Your task to perform on an android device: choose inbox layout in the gmail app Image 0: 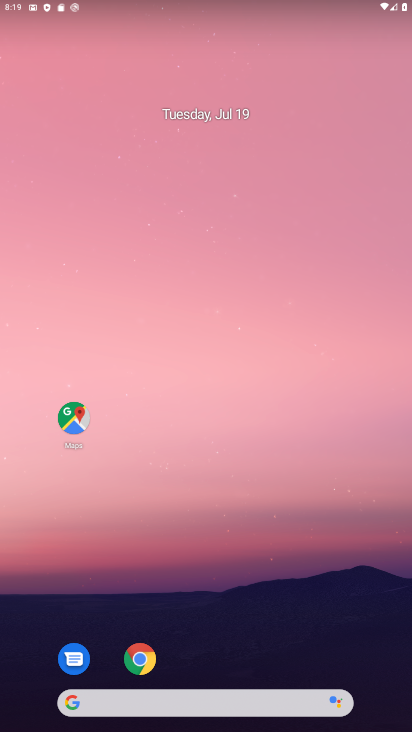
Step 0: drag from (239, 291) to (237, 35)
Your task to perform on an android device: choose inbox layout in the gmail app Image 1: 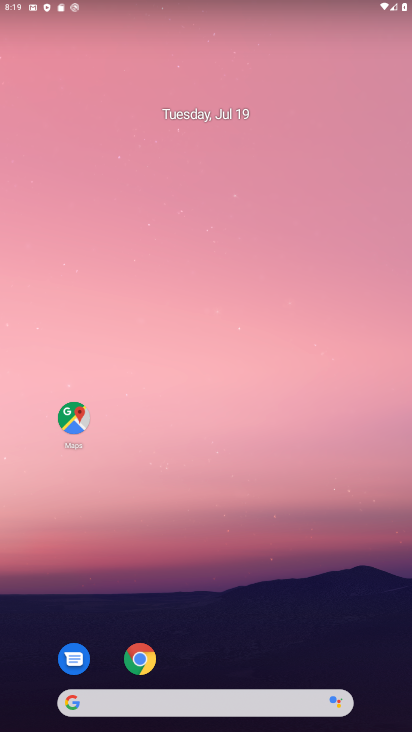
Step 1: drag from (222, 644) to (188, 144)
Your task to perform on an android device: choose inbox layout in the gmail app Image 2: 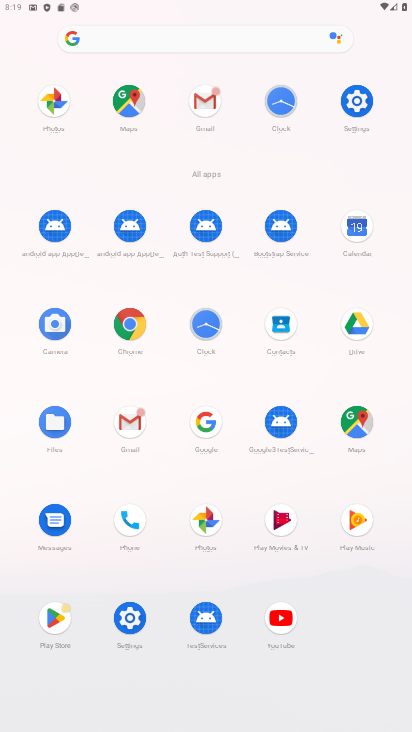
Step 2: click (133, 416)
Your task to perform on an android device: choose inbox layout in the gmail app Image 3: 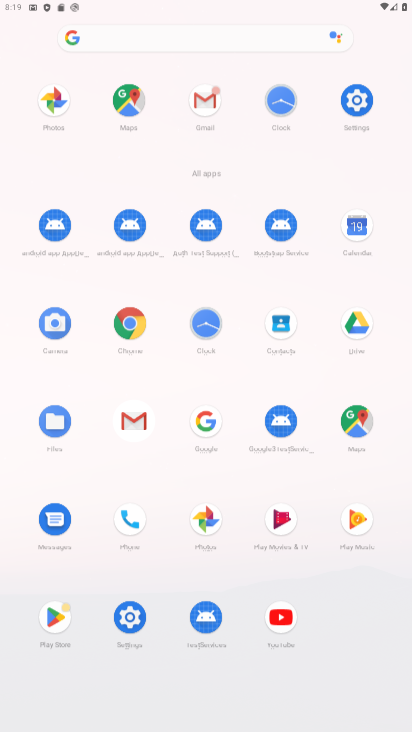
Step 3: click (133, 423)
Your task to perform on an android device: choose inbox layout in the gmail app Image 4: 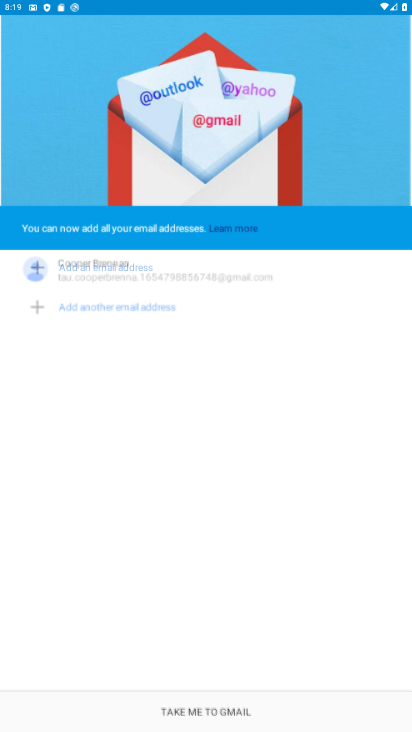
Step 4: click (133, 422)
Your task to perform on an android device: choose inbox layout in the gmail app Image 5: 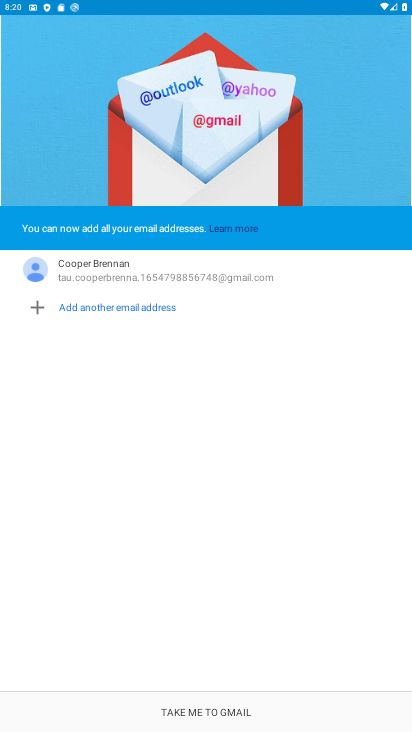
Step 5: press back button
Your task to perform on an android device: choose inbox layout in the gmail app Image 6: 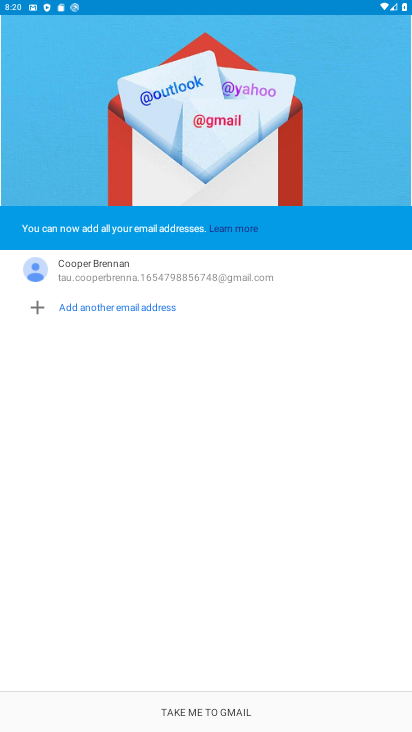
Step 6: press back button
Your task to perform on an android device: choose inbox layout in the gmail app Image 7: 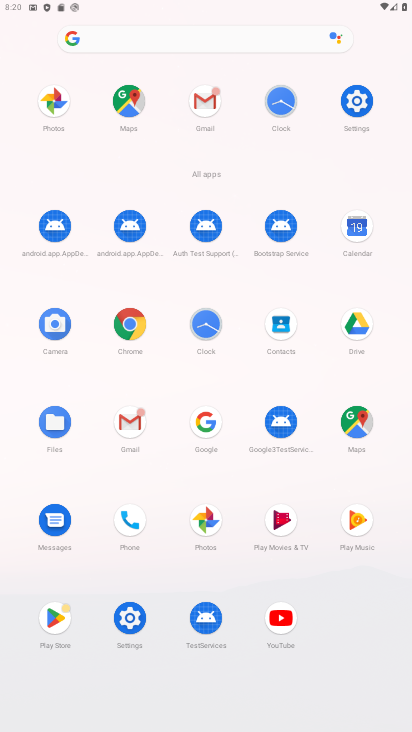
Step 7: click (201, 713)
Your task to perform on an android device: choose inbox layout in the gmail app Image 8: 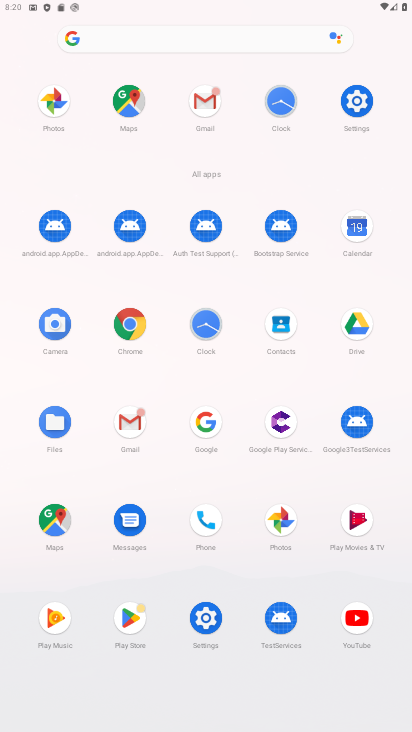
Step 8: click (128, 418)
Your task to perform on an android device: choose inbox layout in the gmail app Image 9: 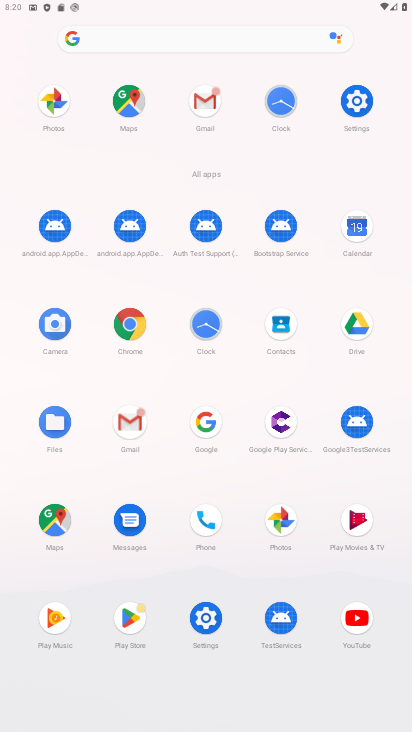
Step 9: click (129, 418)
Your task to perform on an android device: choose inbox layout in the gmail app Image 10: 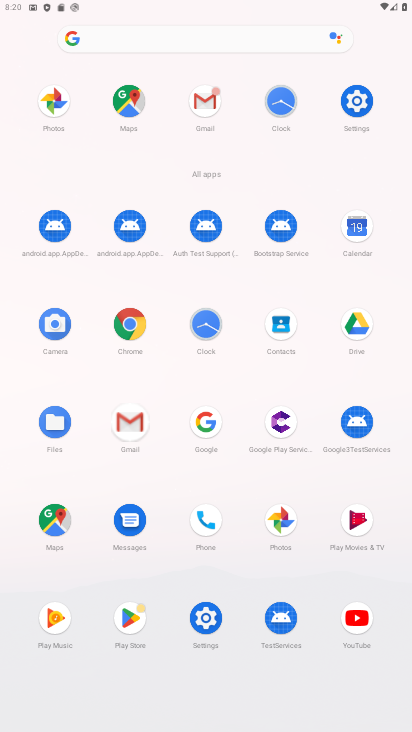
Step 10: click (130, 418)
Your task to perform on an android device: choose inbox layout in the gmail app Image 11: 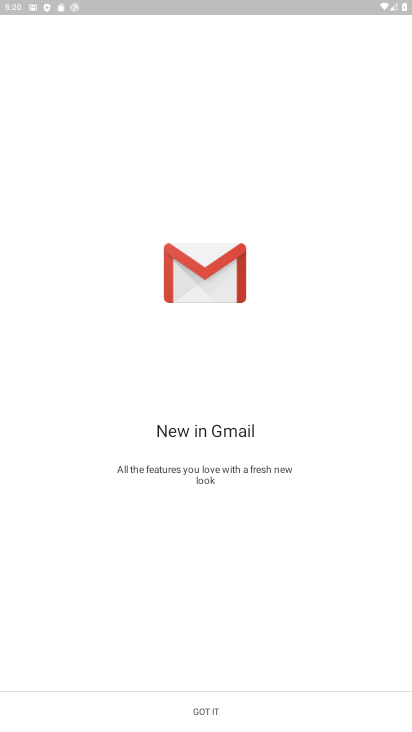
Step 11: click (238, 722)
Your task to perform on an android device: choose inbox layout in the gmail app Image 12: 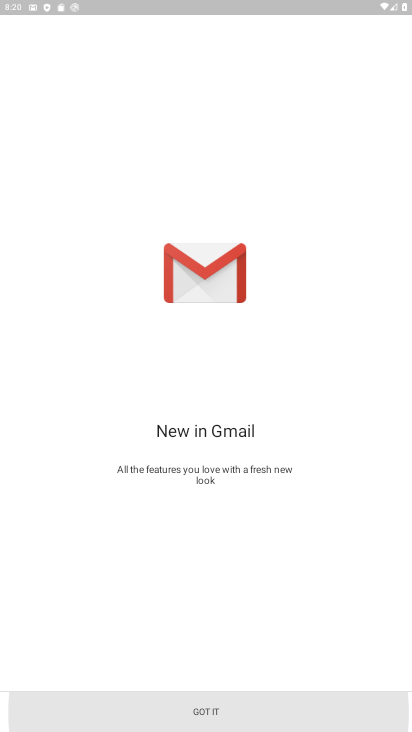
Step 12: click (237, 722)
Your task to perform on an android device: choose inbox layout in the gmail app Image 13: 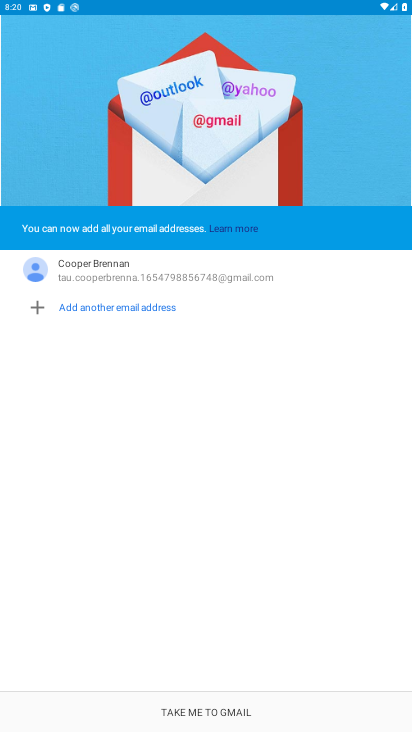
Step 13: press back button
Your task to perform on an android device: choose inbox layout in the gmail app Image 14: 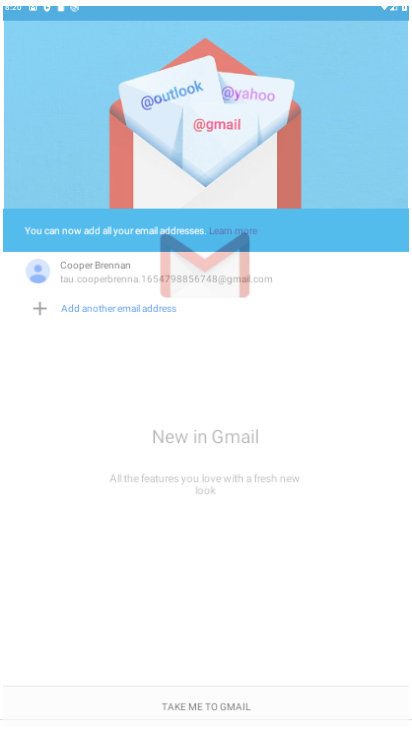
Step 14: press back button
Your task to perform on an android device: choose inbox layout in the gmail app Image 15: 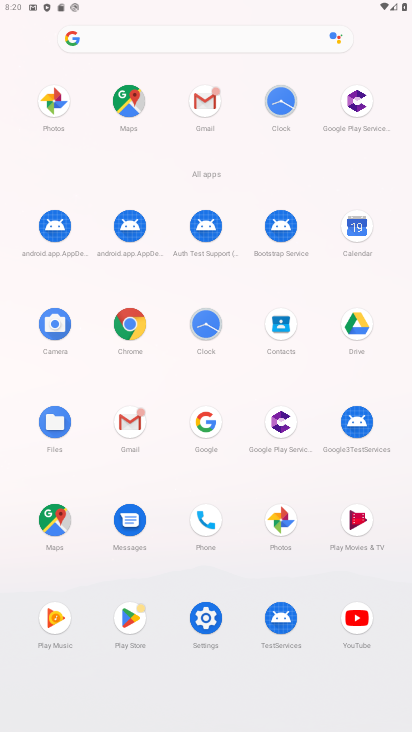
Step 15: click (124, 422)
Your task to perform on an android device: choose inbox layout in the gmail app Image 16: 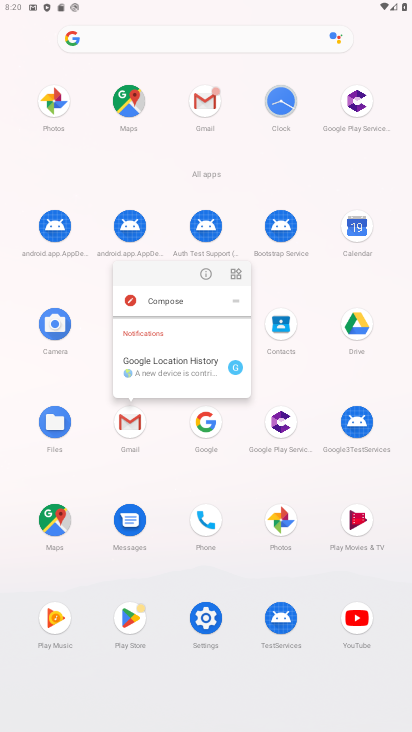
Step 16: click (124, 421)
Your task to perform on an android device: choose inbox layout in the gmail app Image 17: 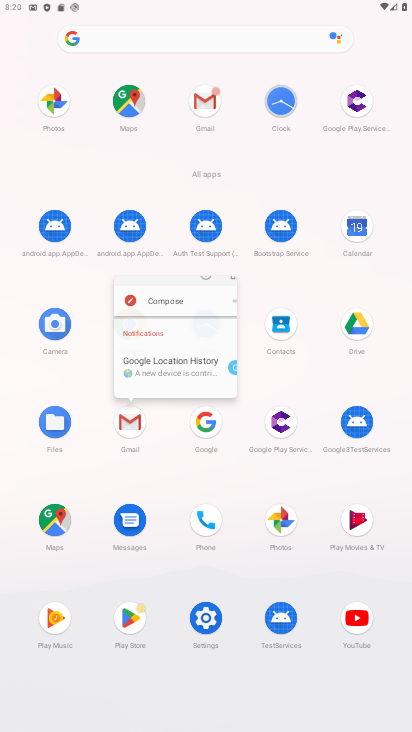
Step 17: click (124, 421)
Your task to perform on an android device: choose inbox layout in the gmail app Image 18: 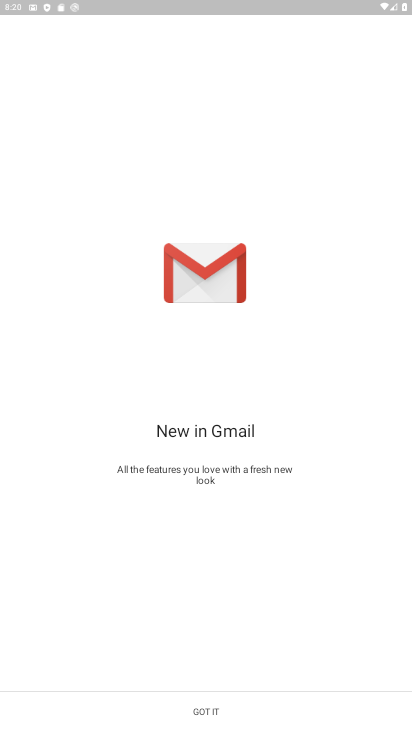
Step 18: click (211, 703)
Your task to perform on an android device: choose inbox layout in the gmail app Image 19: 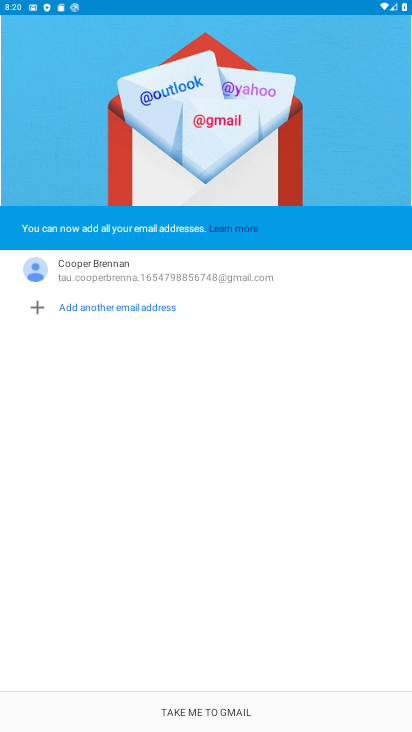
Step 19: click (214, 717)
Your task to perform on an android device: choose inbox layout in the gmail app Image 20: 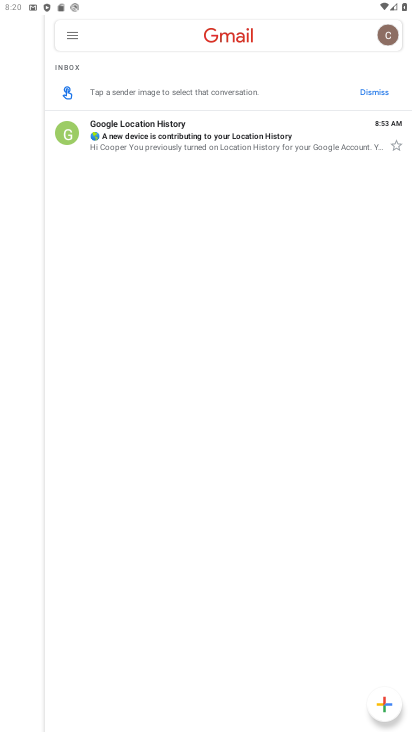
Step 20: click (72, 38)
Your task to perform on an android device: choose inbox layout in the gmail app Image 21: 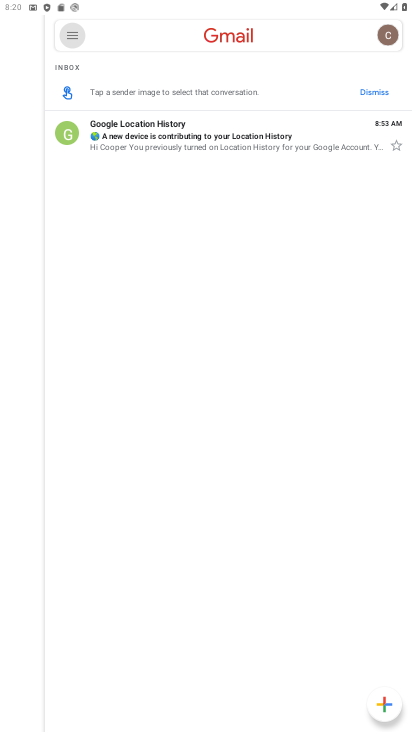
Step 21: click (73, 36)
Your task to perform on an android device: choose inbox layout in the gmail app Image 22: 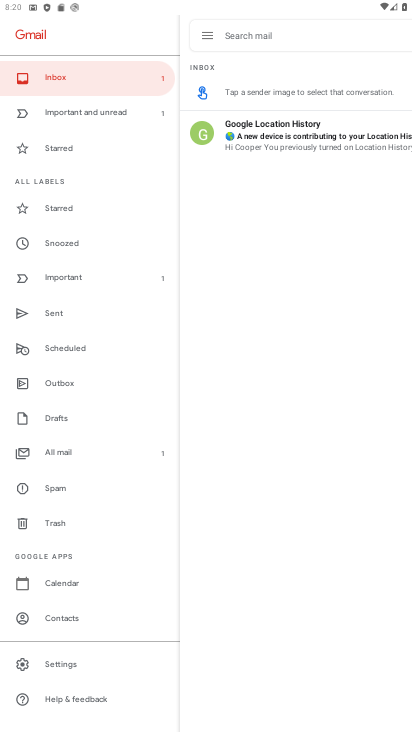
Step 22: click (298, 300)
Your task to perform on an android device: choose inbox layout in the gmail app Image 23: 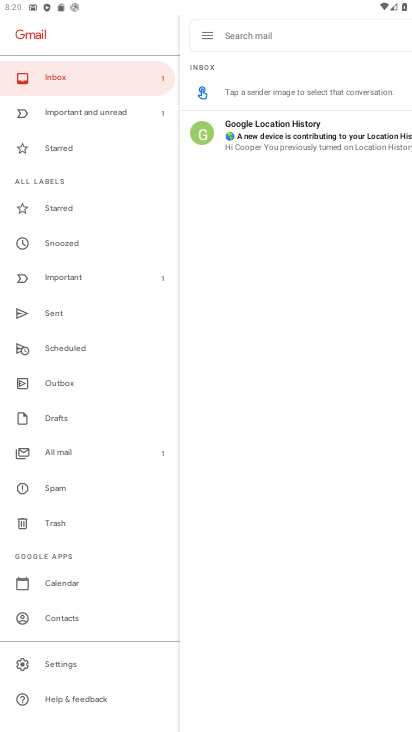
Step 23: click (307, 131)
Your task to perform on an android device: choose inbox layout in the gmail app Image 24: 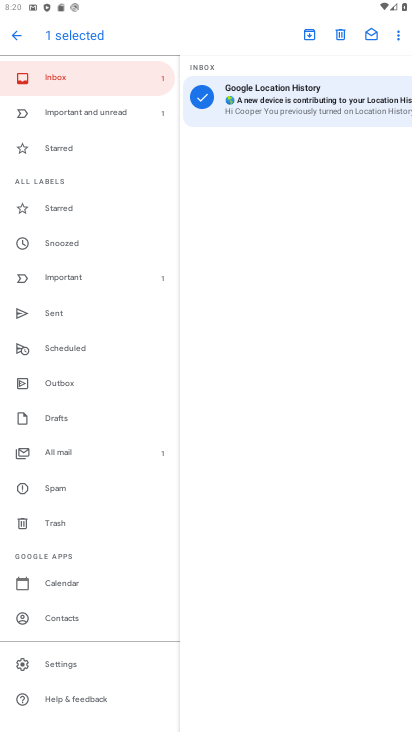
Step 24: click (400, 30)
Your task to perform on an android device: choose inbox layout in the gmail app Image 25: 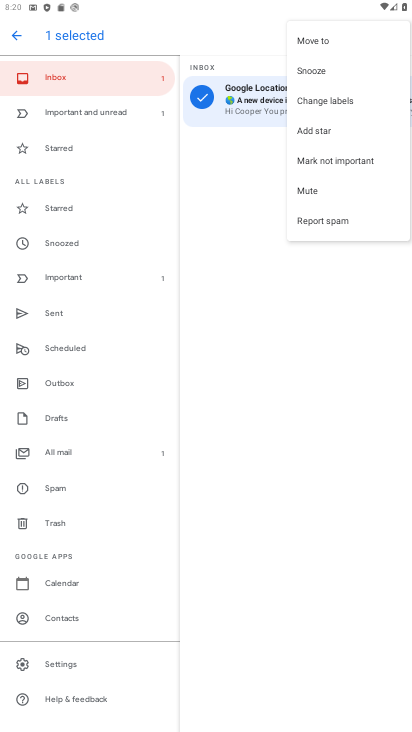
Step 25: click (295, 263)
Your task to perform on an android device: choose inbox layout in the gmail app Image 26: 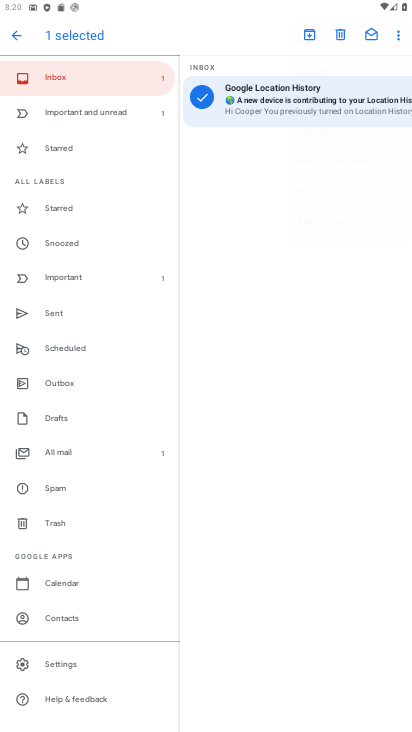
Step 26: click (270, 317)
Your task to perform on an android device: choose inbox layout in the gmail app Image 27: 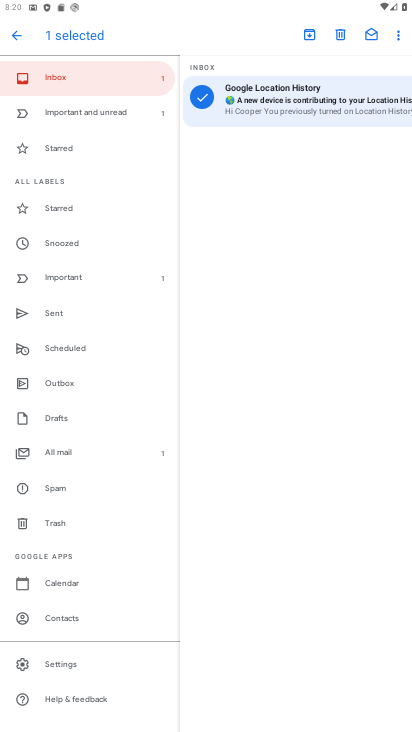
Step 27: click (229, 266)
Your task to perform on an android device: choose inbox layout in the gmail app Image 28: 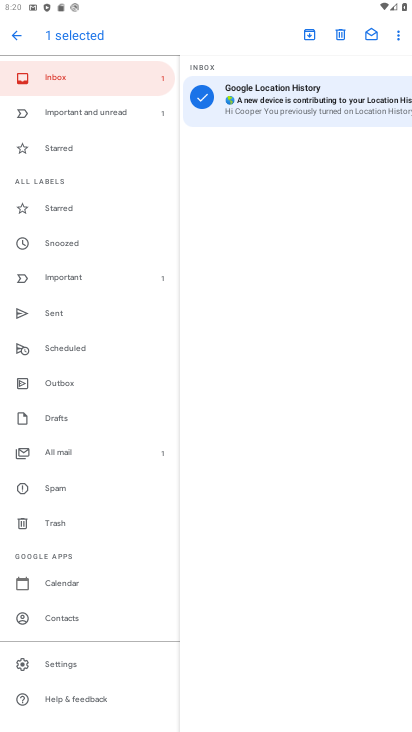
Step 28: click (62, 661)
Your task to perform on an android device: choose inbox layout in the gmail app Image 29: 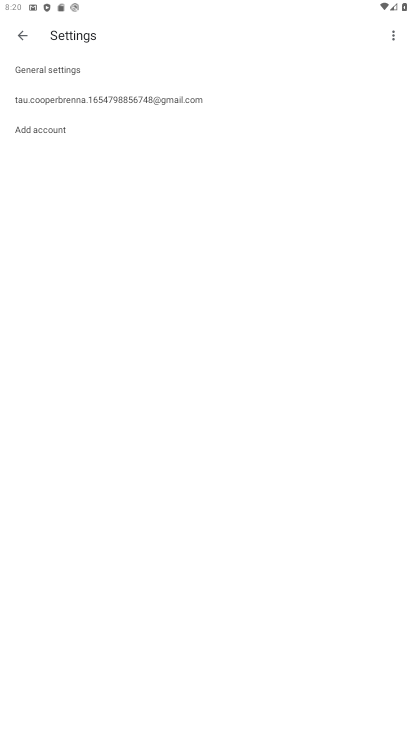
Step 29: click (139, 90)
Your task to perform on an android device: choose inbox layout in the gmail app Image 30: 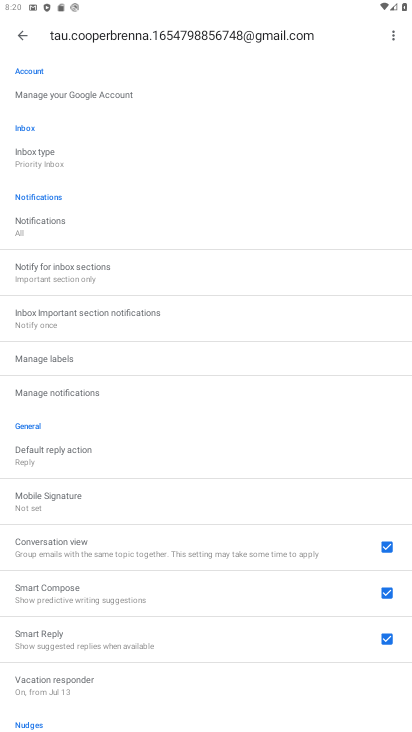
Step 30: click (29, 154)
Your task to perform on an android device: choose inbox layout in the gmail app Image 31: 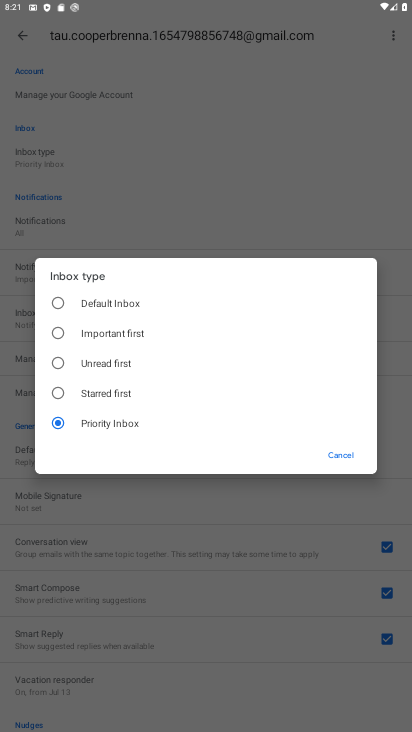
Step 31: click (54, 299)
Your task to perform on an android device: choose inbox layout in the gmail app Image 32: 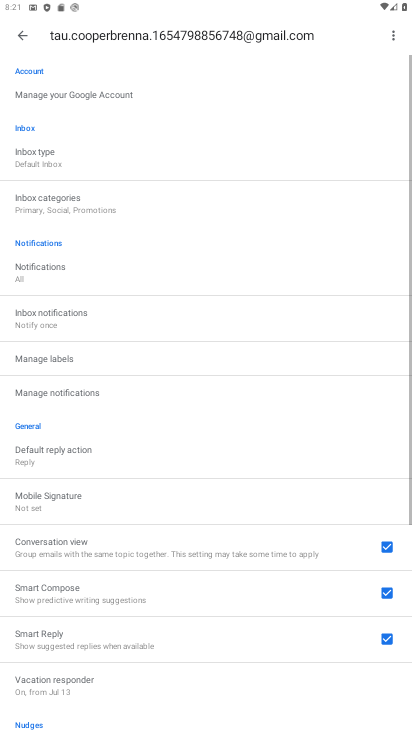
Step 32: task complete